Your task to perform on an android device: stop showing notifications on the lock screen Image 0: 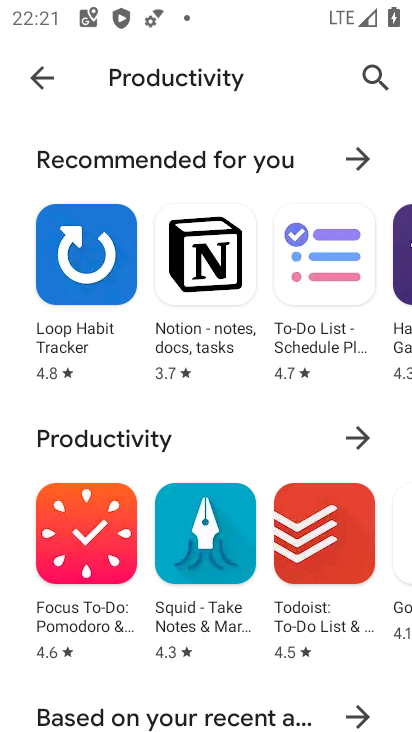
Step 0: press home button
Your task to perform on an android device: stop showing notifications on the lock screen Image 1: 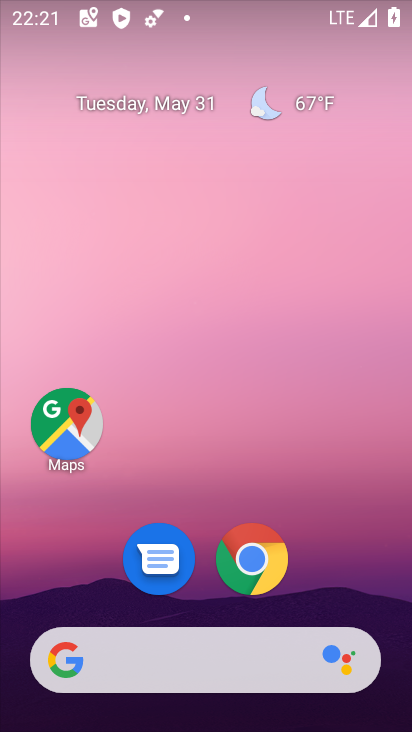
Step 1: drag from (339, 595) to (332, 96)
Your task to perform on an android device: stop showing notifications on the lock screen Image 2: 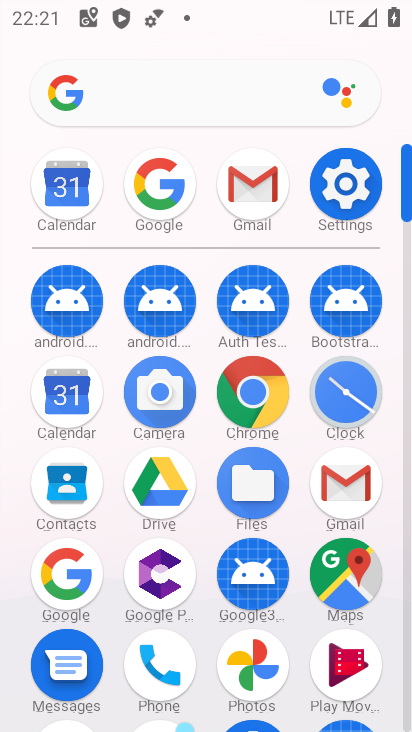
Step 2: click (348, 189)
Your task to perform on an android device: stop showing notifications on the lock screen Image 3: 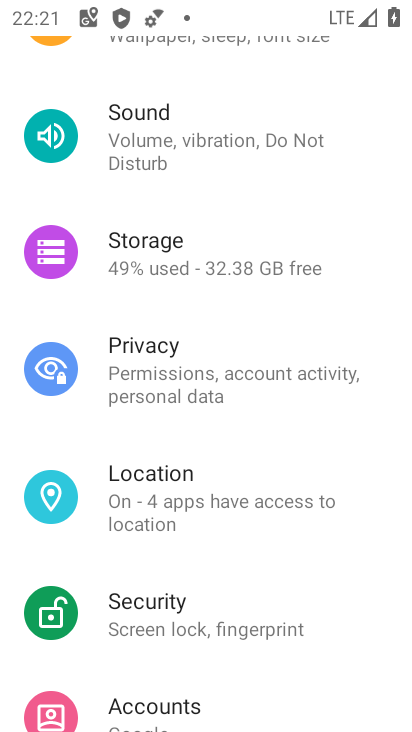
Step 3: drag from (236, 220) to (232, 677)
Your task to perform on an android device: stop showing notifications on the lock screen Image 4: 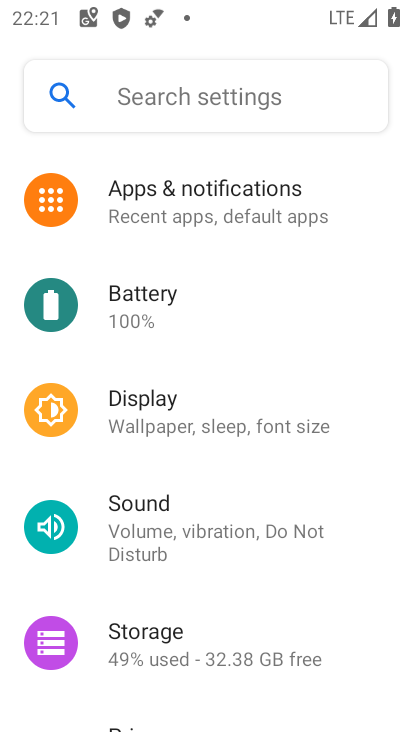
Step 4: drag from (210, 188) to (212, 454)
Your task to perform on an android device: stop showing notifications on the lock screen Image 5: 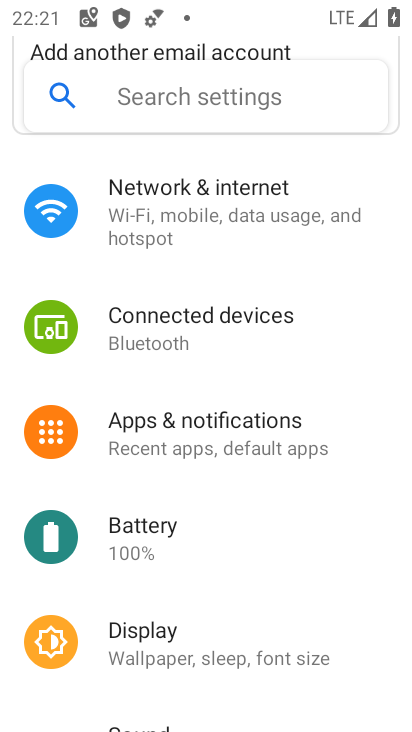
Step 5: click (211, 436)
Your task to perform on an android device: stop showing notifications on the lock screen Image 6: 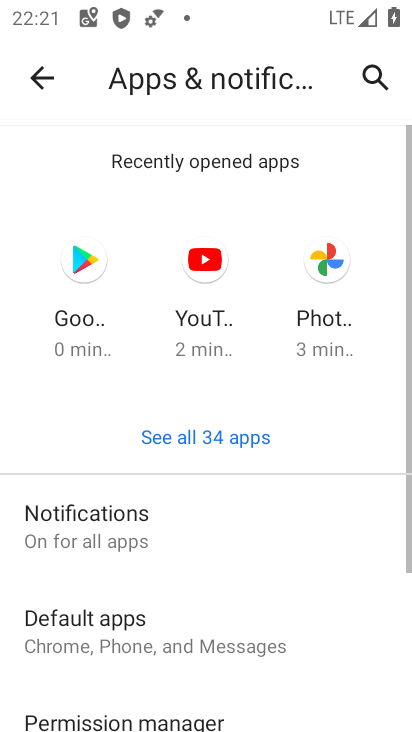
Step 6: click (132, 537)
Your task to perform on an android device: stop showing notifications on the lock screen Image 7: 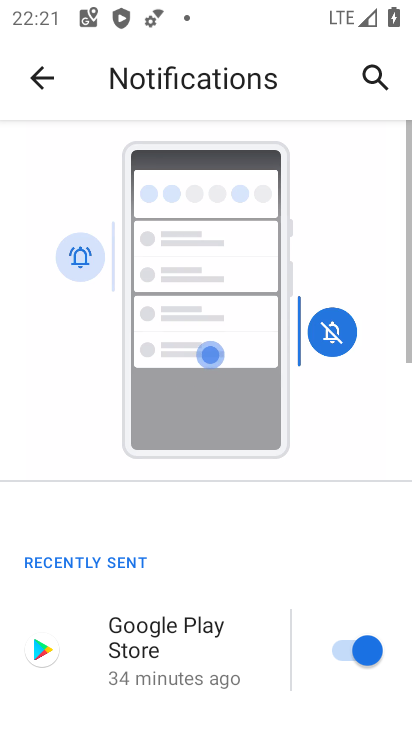
Step 7: drag from (223, 579) to (231, 13)
Your task to perform on an android device: stop showing notifications on the lock screen Image 8: 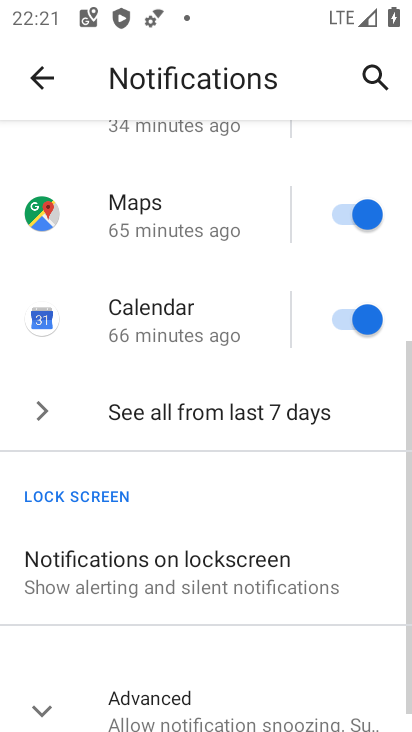
Step 8: click (194, 543)
Your task to perform on an android device: stop showing notifications on the lock screen Image 9: 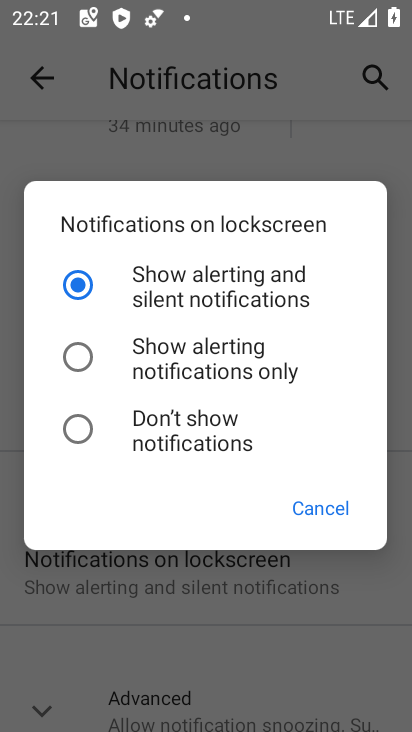
Step 9: click (78, 424)
Your task to perform on an android device: stop showing notifications on the lock screen Image 10: 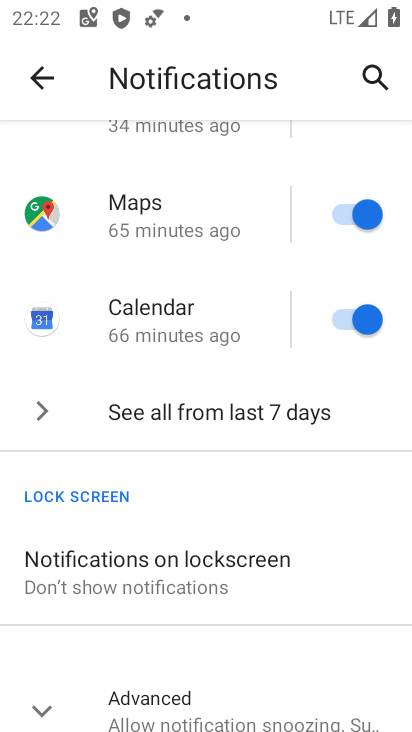
Step 10: task complete